Your task to perform on an android device: Open Wikipedia Image 0: 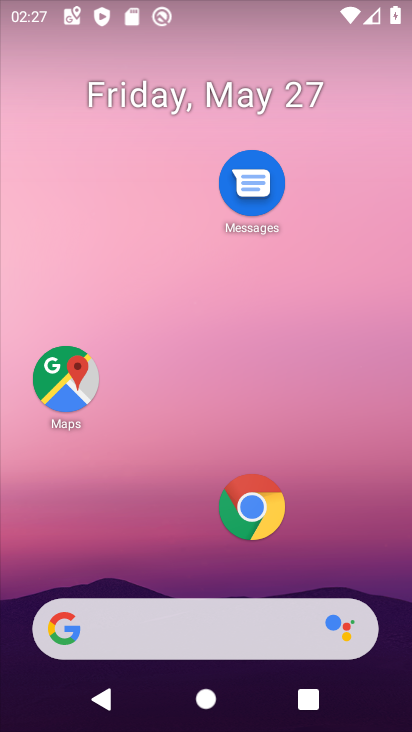
Step 0: drag from (199, 554) to (282, 102)
Your task to perform on an android device: Open Wikipedia Image 1: 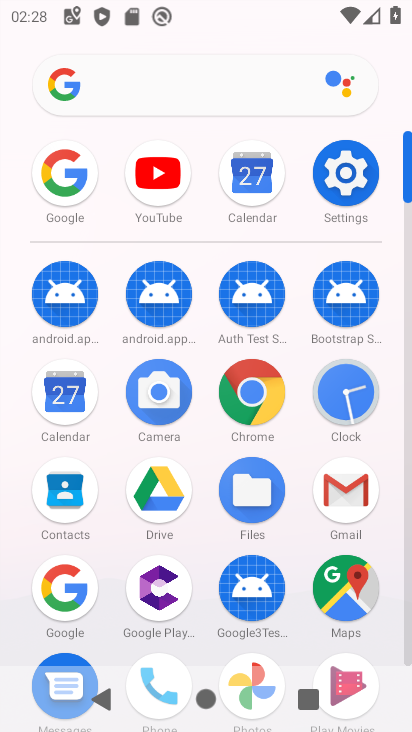
Step 1: drag from (114, 532) to (118, 290)
Your task to perform on an android device: Open Wikipedia Image 2: 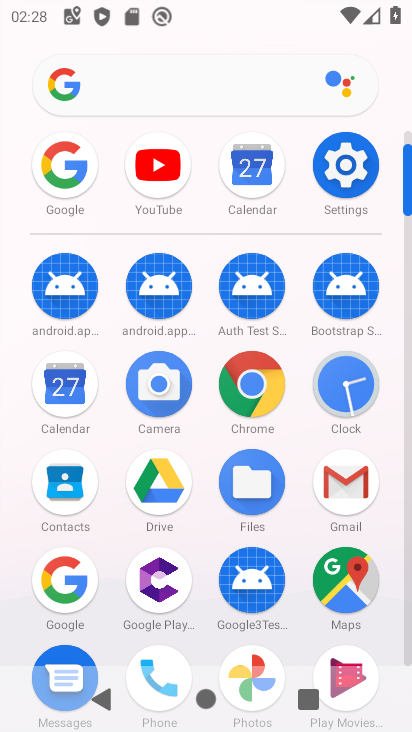
Step 2: drag from (214, 519) to (231, 200)
Your task to perform on an android device: Open Wikipedia Image 3: 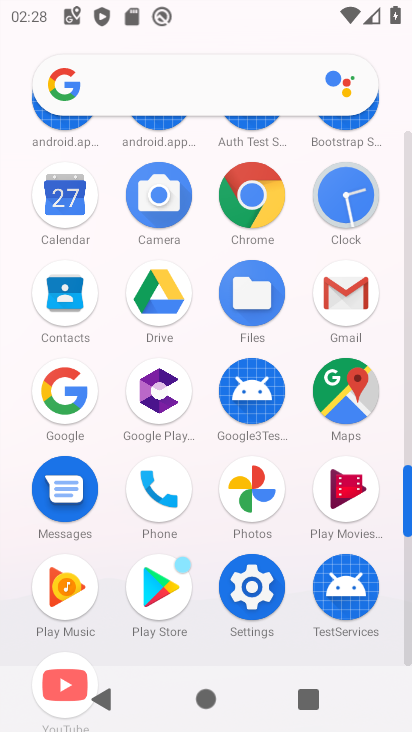
Step 3: click (202, 90)
Your task to perform on an android device: Open Wikipedia Image 4: 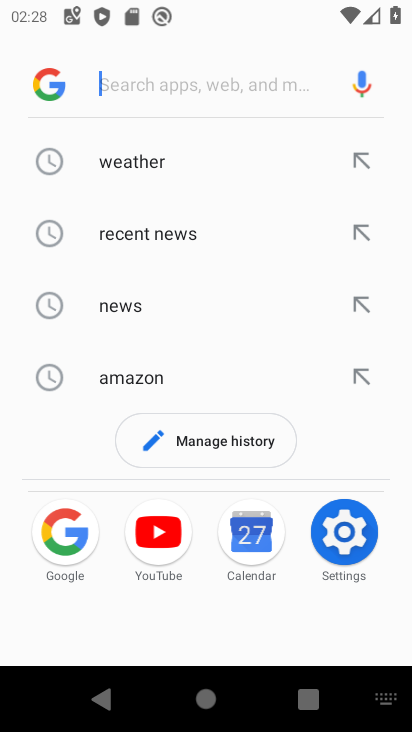
Step 4: type "Wikipedia"
Your task to perform on an android device: Open Wikipedia Image 5: 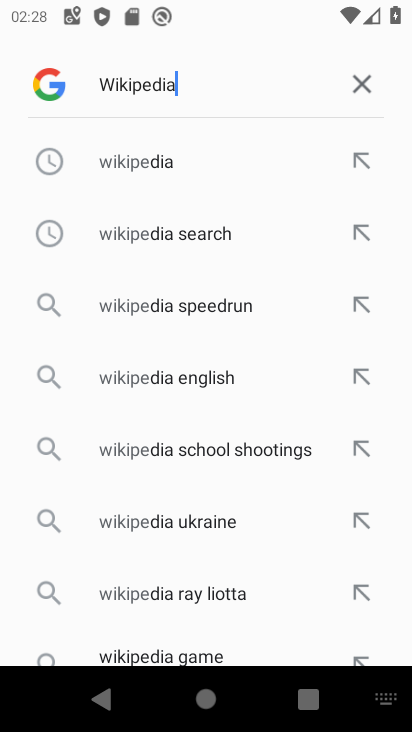
Step 5: type ""
Your task to perform on an android device: Open Wikipedia Image 6: 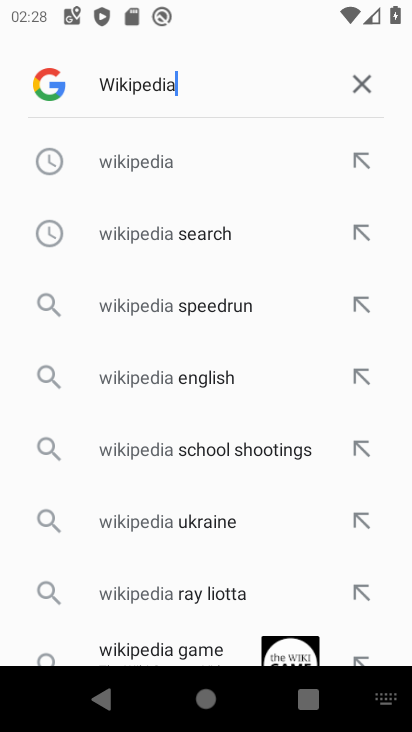
Step 6: click (156, 170)
Your task to perform on an android device: Open Wikipedia Image 7: 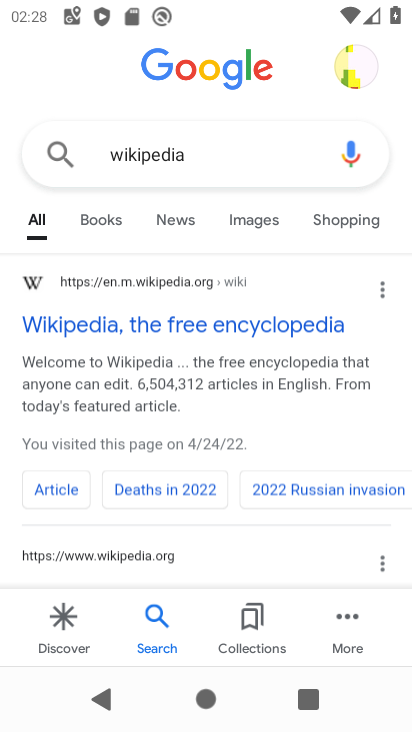
Step 7: click (101, 327)
Your task to perform on an android device: Open Wikipedia Image 8: 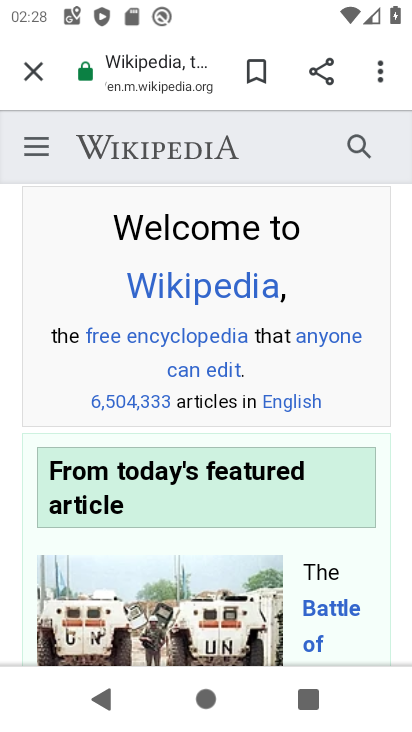
Step 8: task complete